Your task to perform on an android device: turn off location history Image 0: 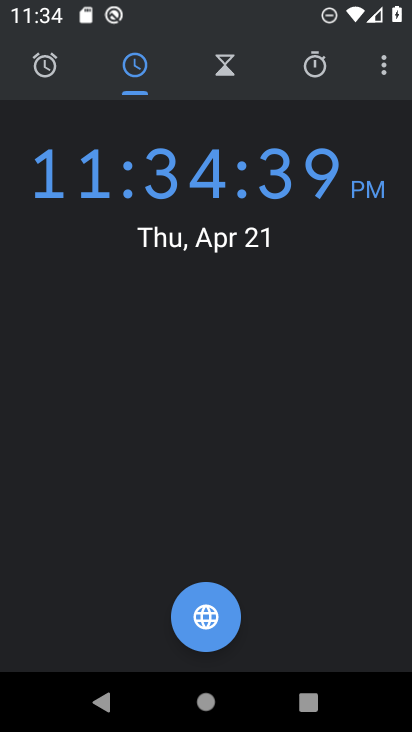
Step 0: press home button
Your task to perform on an android device: turn off location history Image 1: 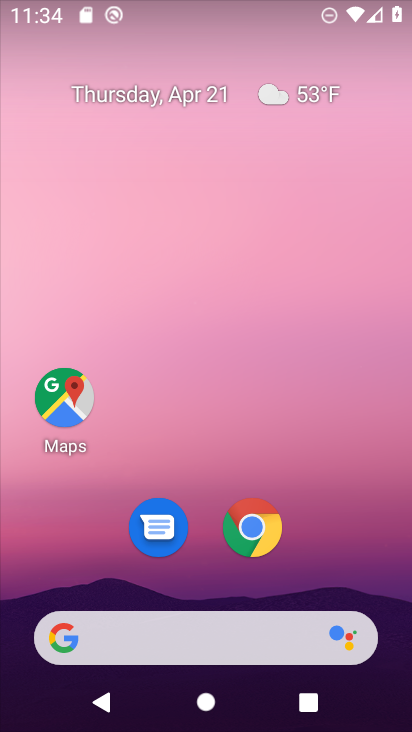
Step 1: drag from (345, 563) to (360, 206)
Your task to perform on an android device: turn off location history Image 2: 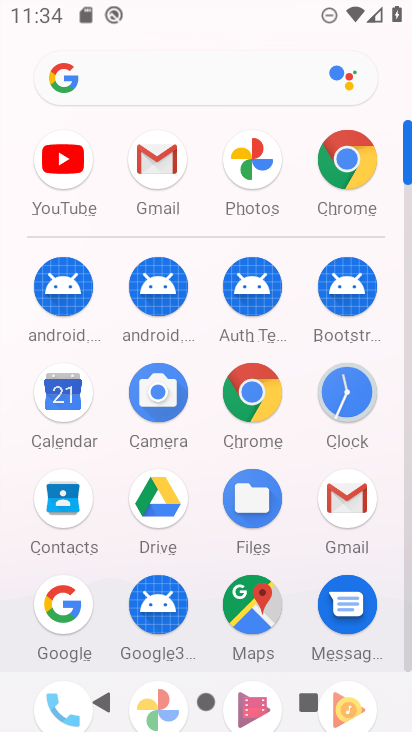
Step 2: drag from (389, 568) to (391, 246)
Your task to perform on an android device: turn off location history Image 3: 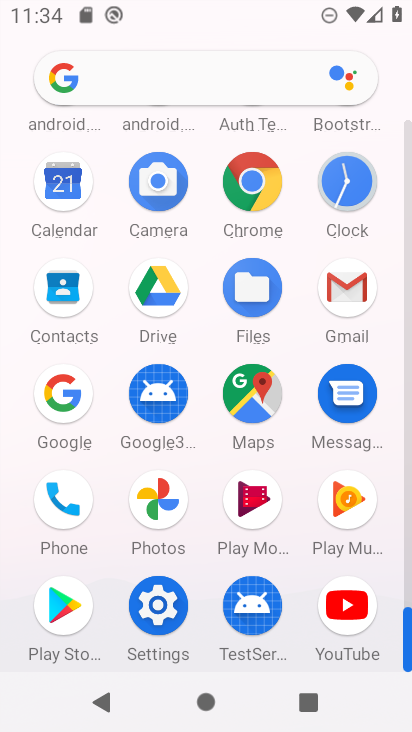
Step 3: click (157, 624)
Your task to perform on an android device: turn off location history Image 4: 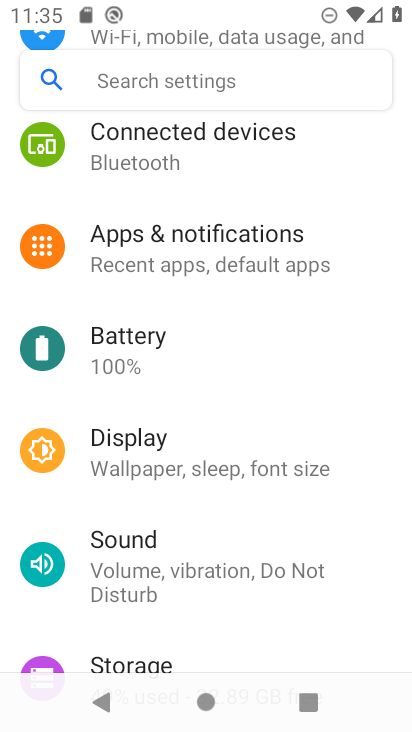
Step 4: drag from (366, 300) to (350, 467)
Your task to perform on an android device: turn off location history Image 5: 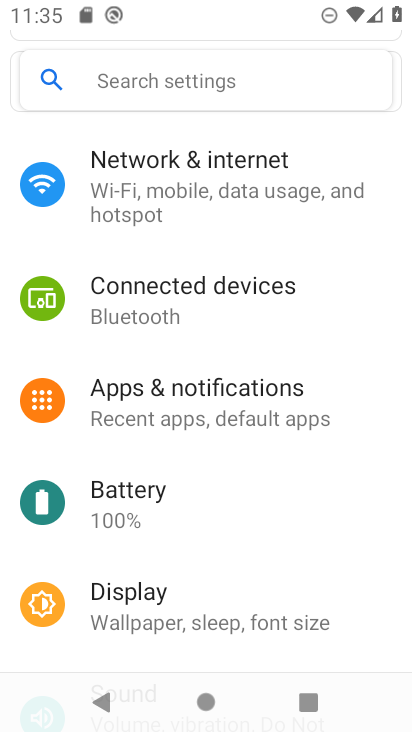
Step 5: drag from (355, 292) to (351, 505)
Your task to perform on an android device: turn off location history Image 6: 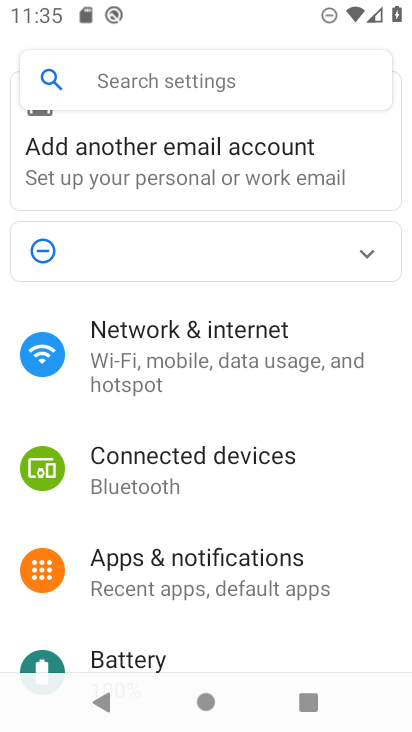
Step 6: drag from (369, 606) to (367, 450)
Your task to perform on an android device: turn off location history Image 7: 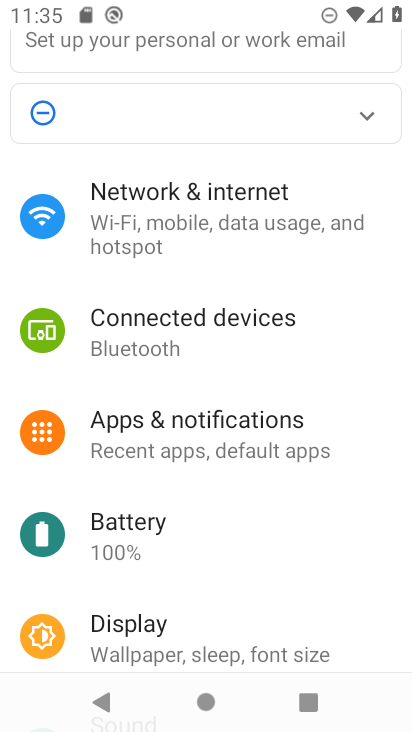
Step 7: drag from (367, 593) to (369, 428)
Your task to perform on an android device: turn off location history Image 8: 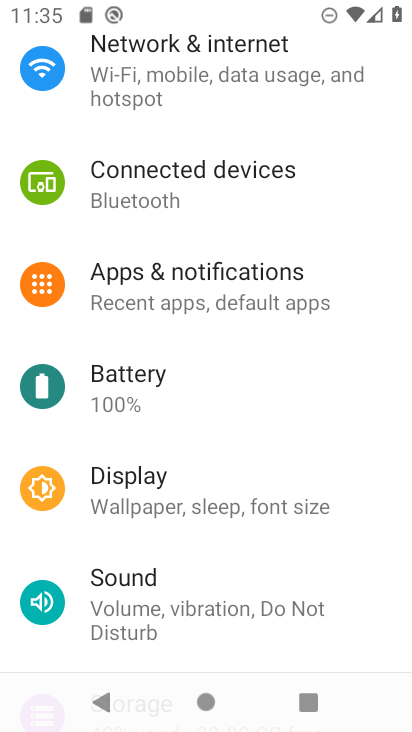
Step 8: drag from (363, 613) to (358, 449)
Your task to perform on an android device: turn off location history Image 9: 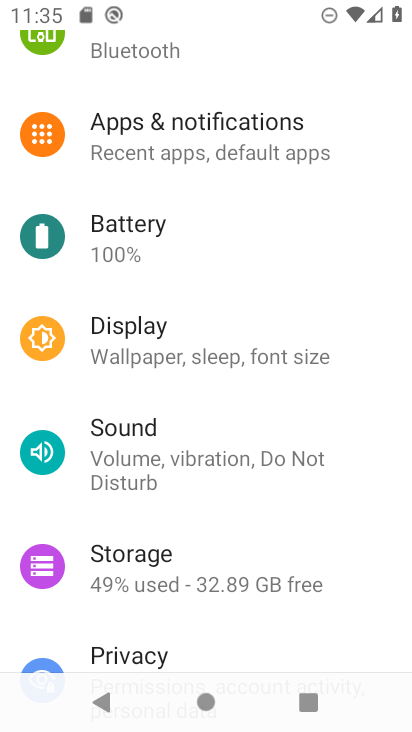
Step 9: drag from (359, 608) to (366, 396)
Your task to perform on an android device: turn off location history Image 10: 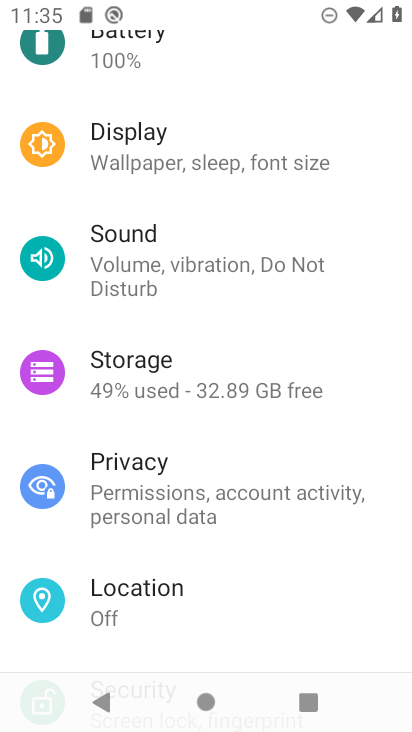
Step 10: drag from (343, 601) to (344, 443)
Your task to perform on an android device: turn off location history Image 11: 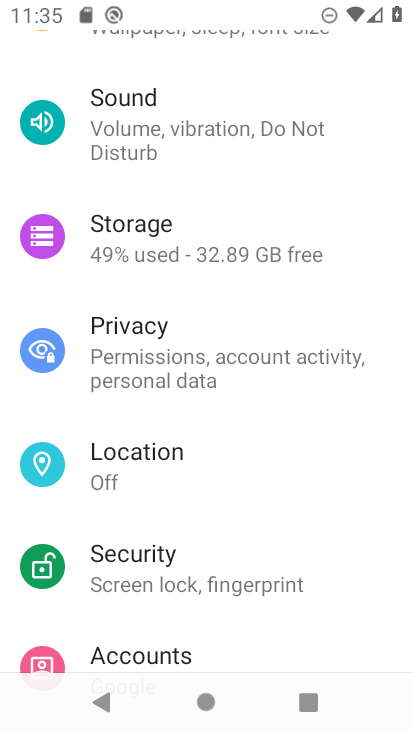
Step 11: click (227, 470)
Your task to perform on an android device: turn off location history Image 12: 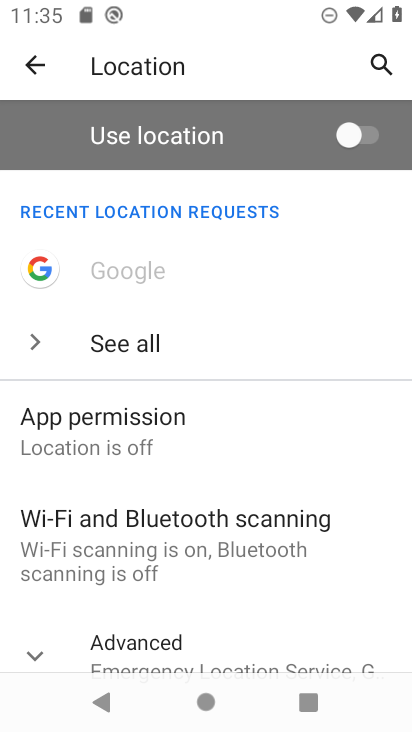
Step 12: drag from (316, 595) to (348, 243)
Your task to perform on an android device: turn off location history Image 13: 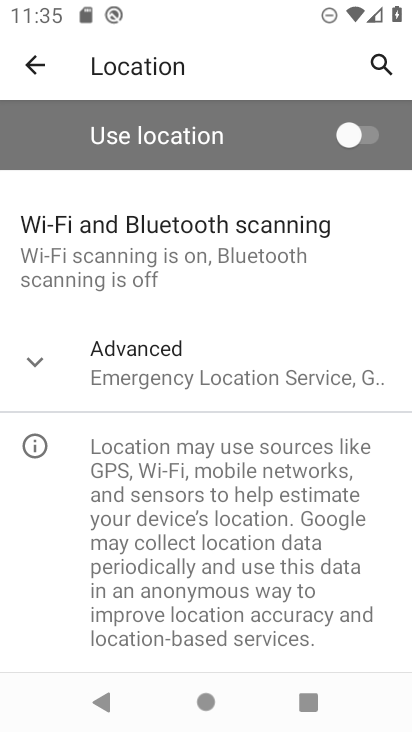
Step 13: click (305, 373)
Your task to perform on an android device: turn off location history Image 14: 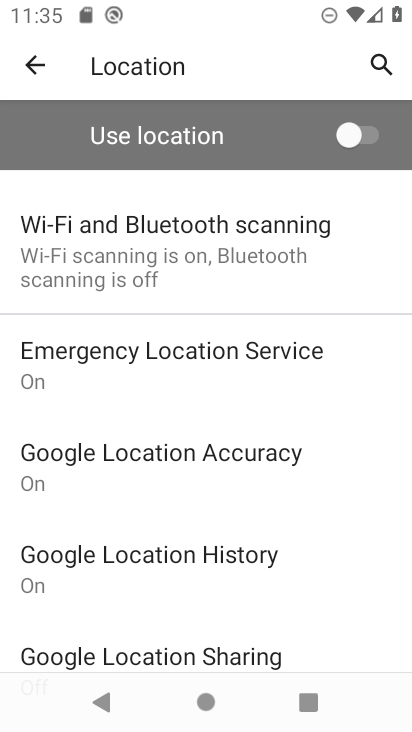
Step 14: drag from (337, 596) to (340, 472)
Your task to perform on an android device: turn off location history Image 15: 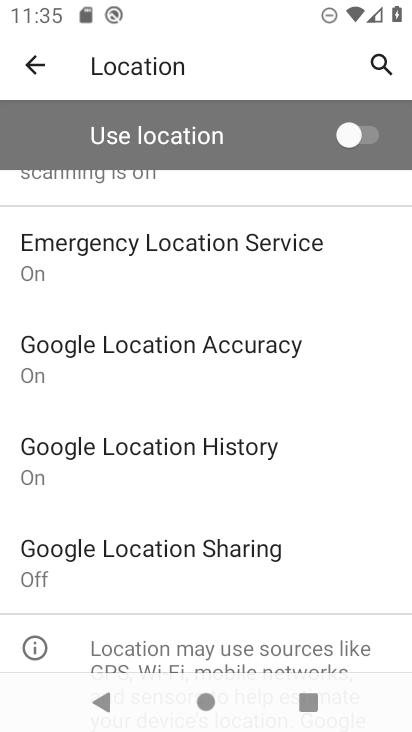
Step 15: click (259, 455)
Your task to perform on an android device: turn off location history Image 16: 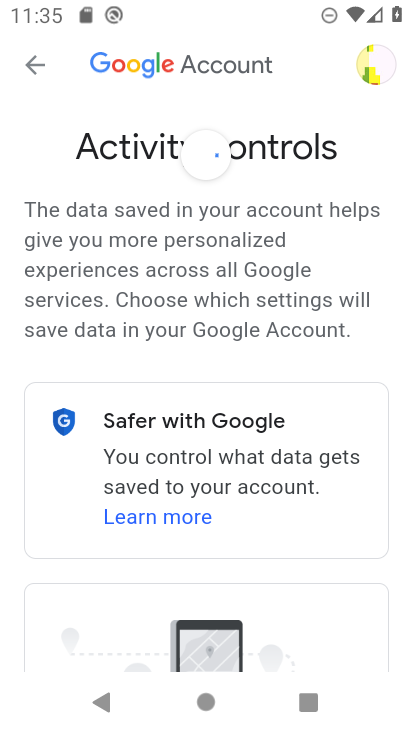
Step 16: drag from (305, 582) to (309, 431)
Your task to perform on an android device: turn off location history Image 17: 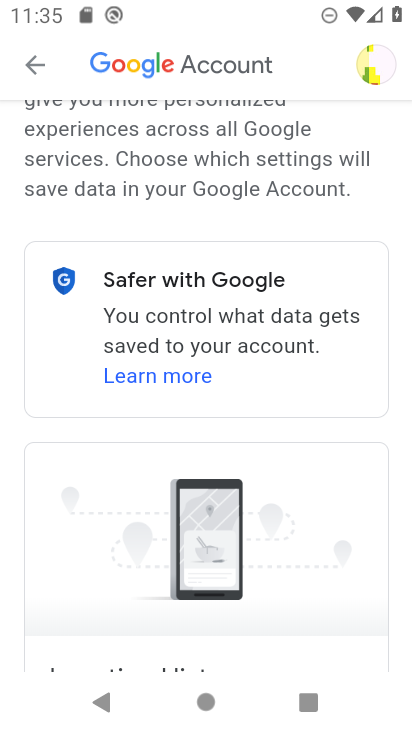
Step 17: drag from (306, 600) to (311, 388)
Your task to perform on an android device: turn off location history Image 18: 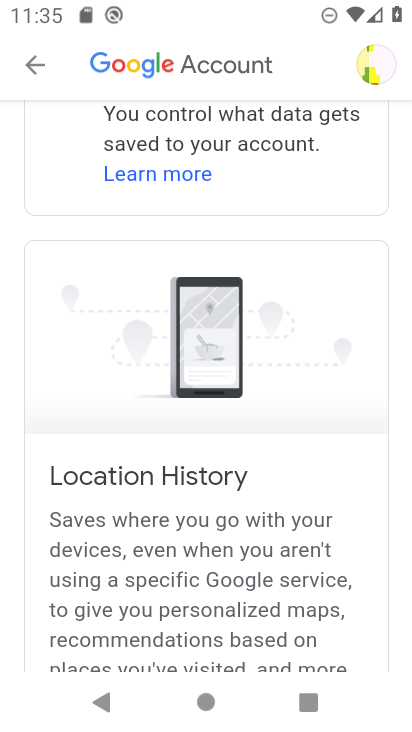
Step 18: drag from (357, 633) to (350, 432)
Your task to perform on an android device: turn off location history Image 19: 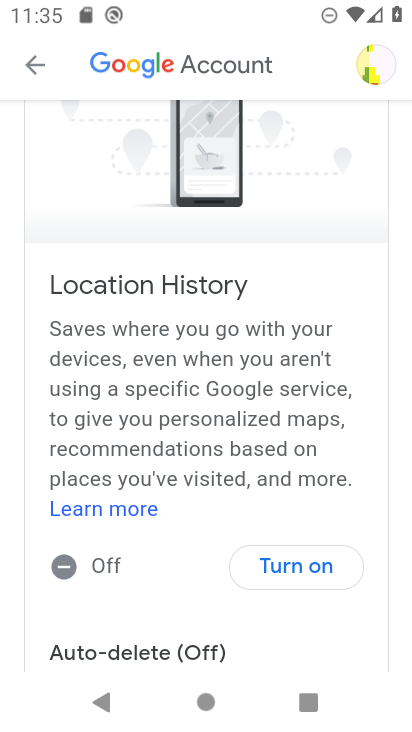
Step 19: drag from (194, 586) to (197, 474)
Your task to perform on an android device: turn off location history Image 20: 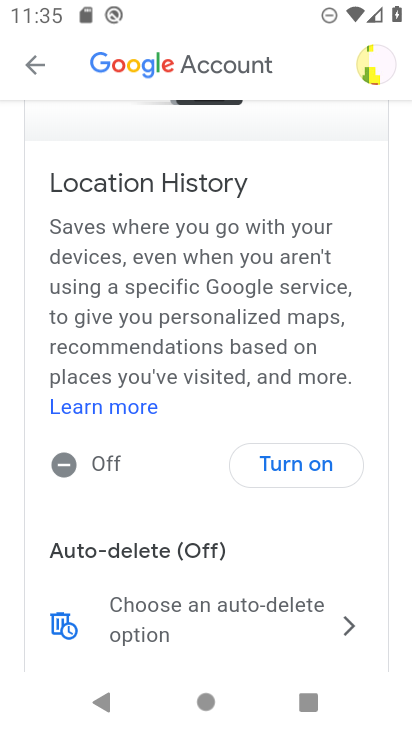
Step 20: click (94, 460)
Your task to perform on an android device: turn off location history Image 21: 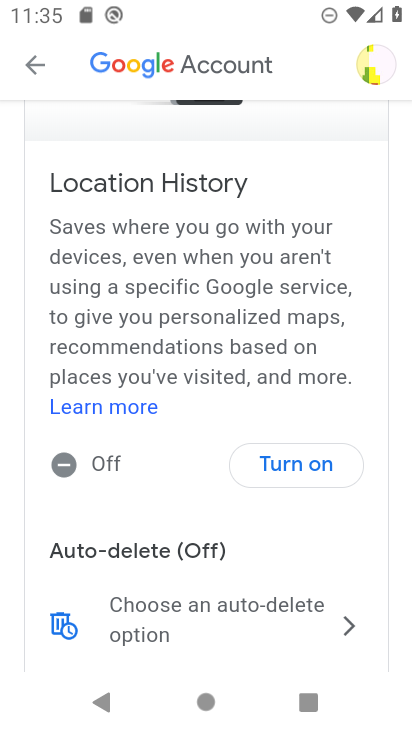
Step 21: click (110, 455)
Your task to perform on an android device: turn off location history Image 22: 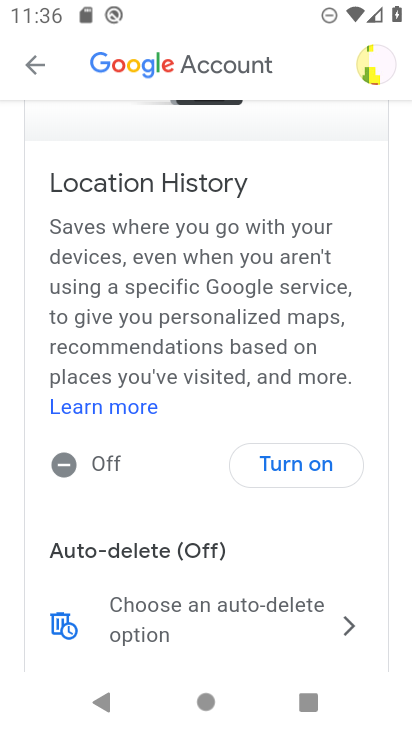
Step 22: task complete